Your task to perform on an android device: Do I have any events today? Image 0: 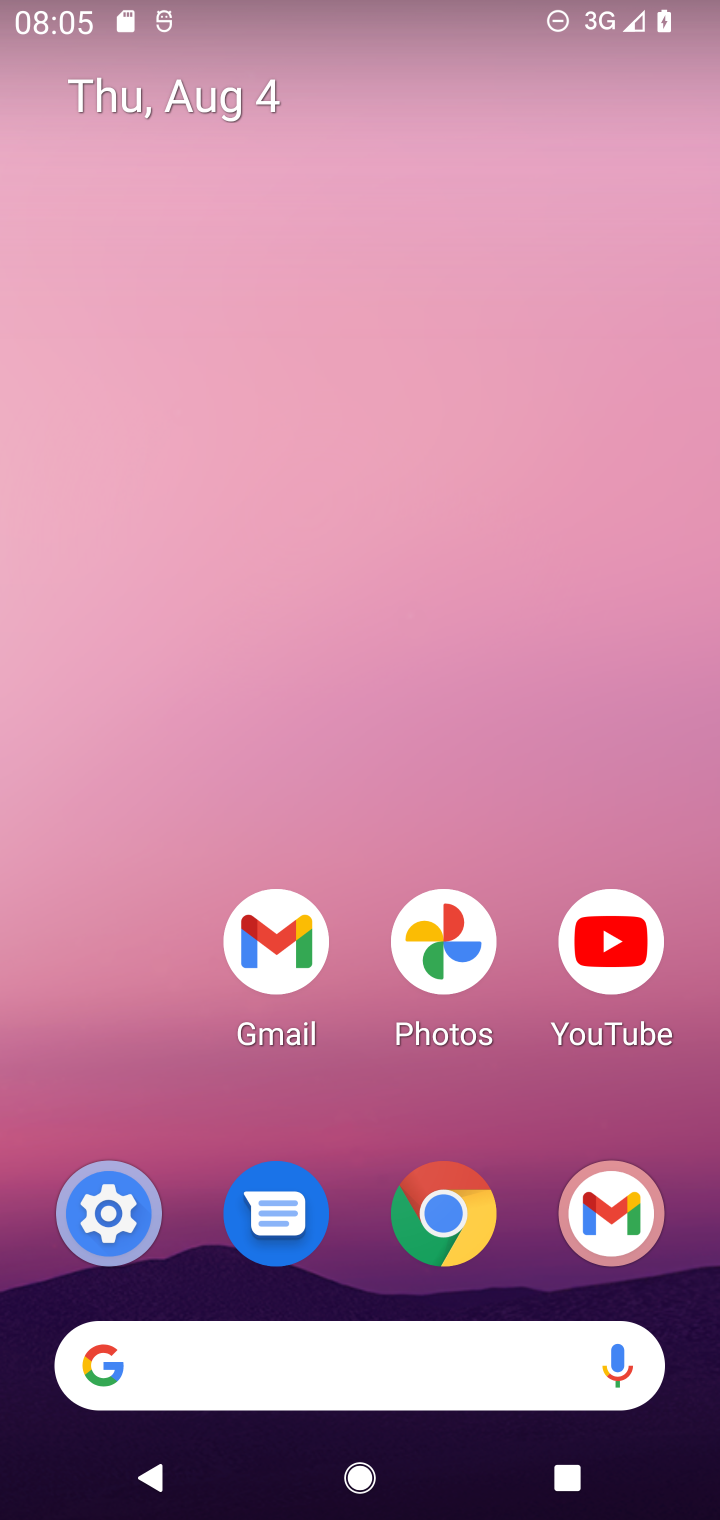
Step 0: press home button
Your task to perform on an android device: Do I have any events today? Image 1: 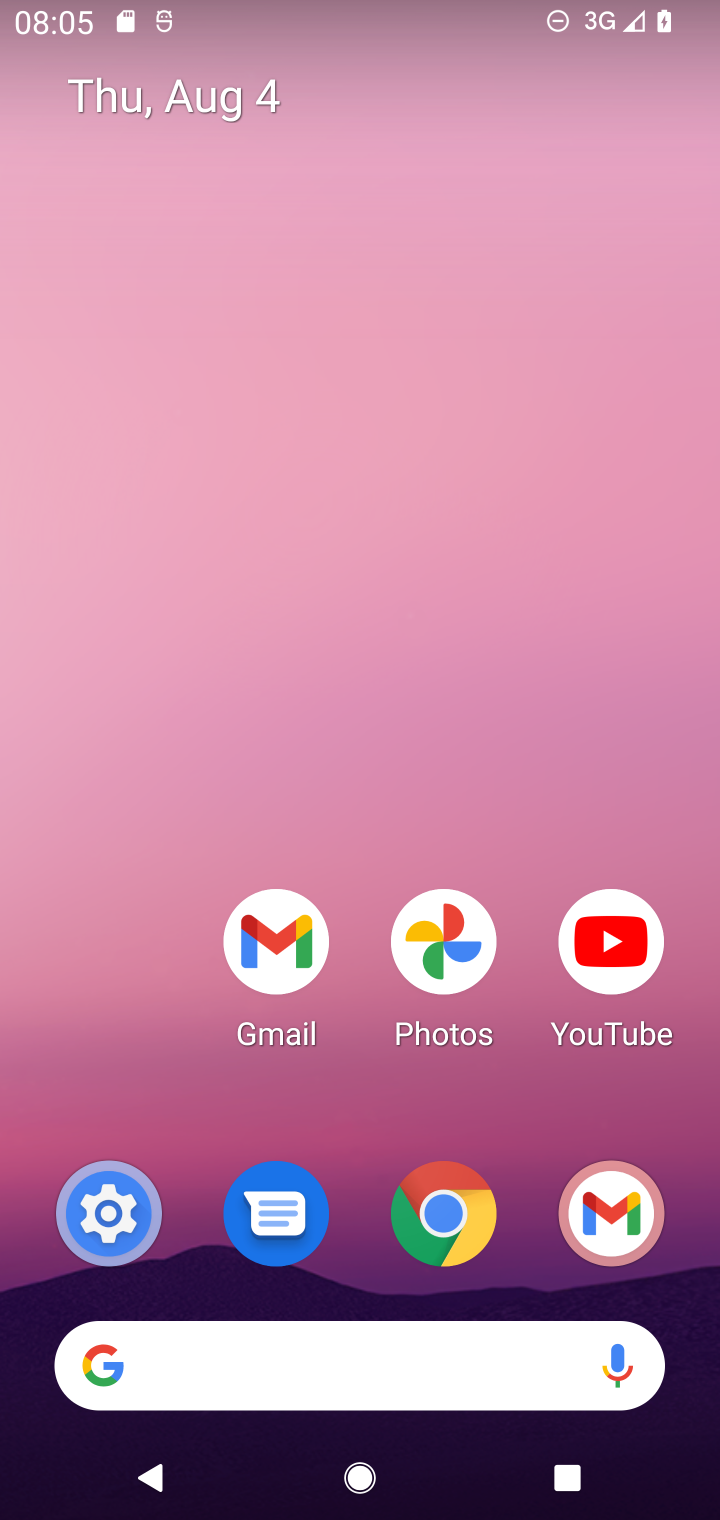
Step 1: drag from (166, 757) to (199, 356)
Your task to perform on an android device: Do I have any events today? Image 2: 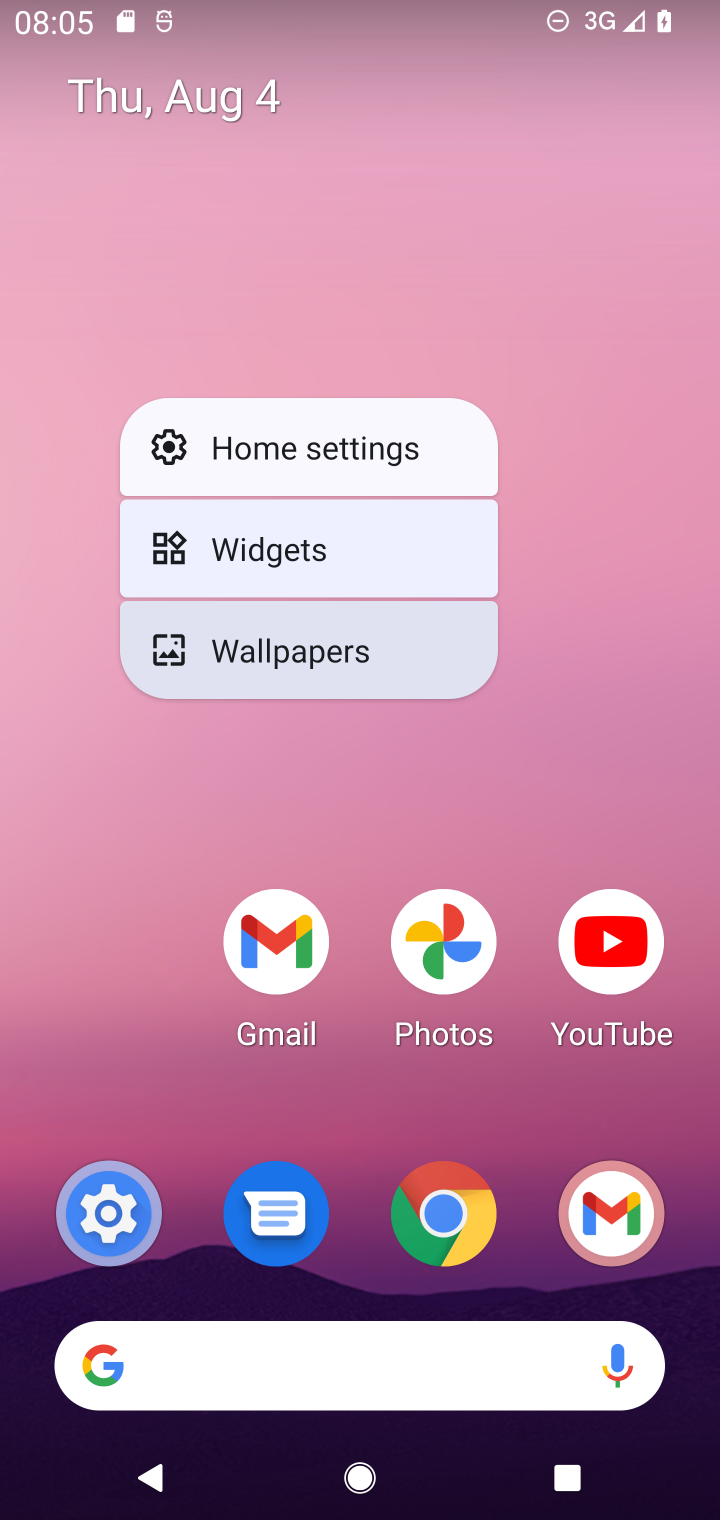
Step 2: click (98, 855)
Your task to perform on an android device: Do I have any events today? Image 3: 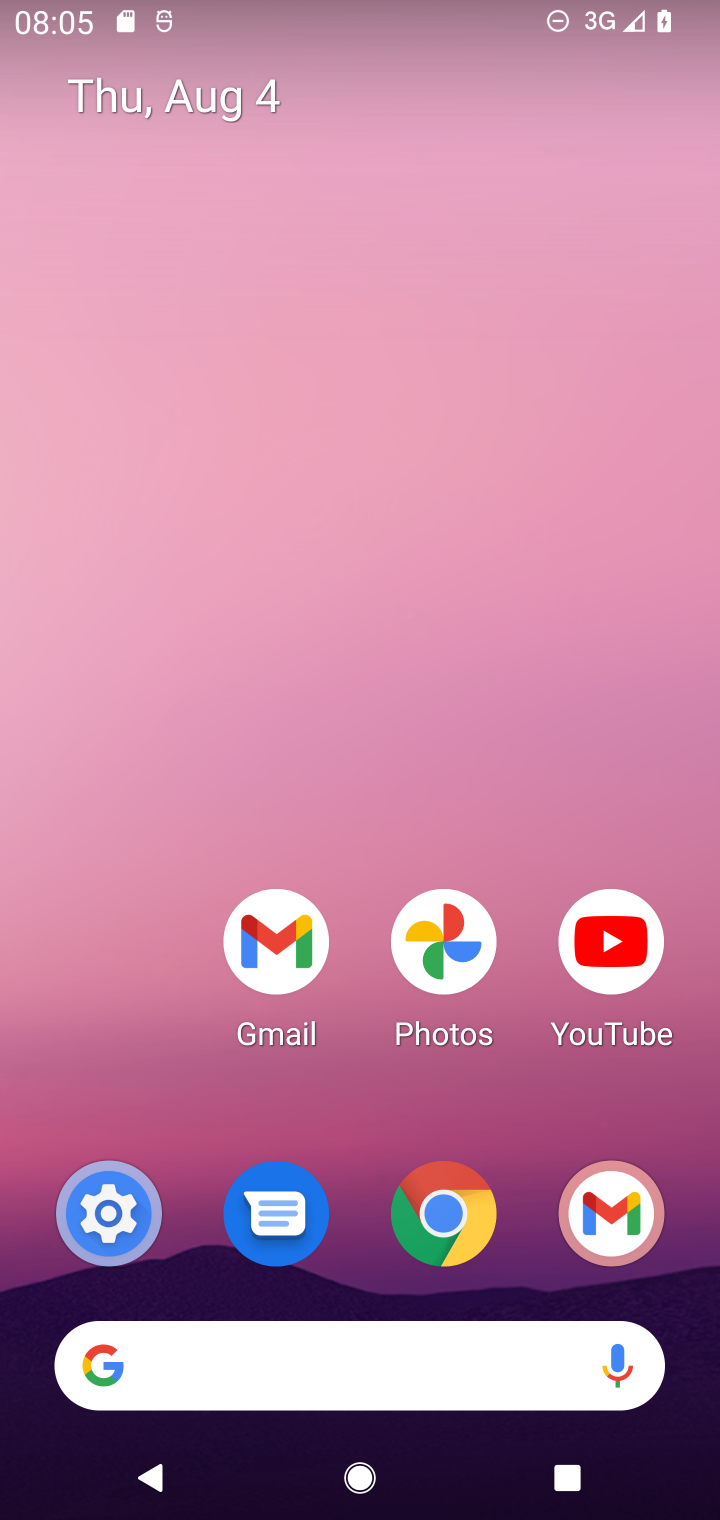
Step 3: drag from (146, 1079) to (137, 212)
Your task to perform on an android device: Do I have any events today? Image 4: 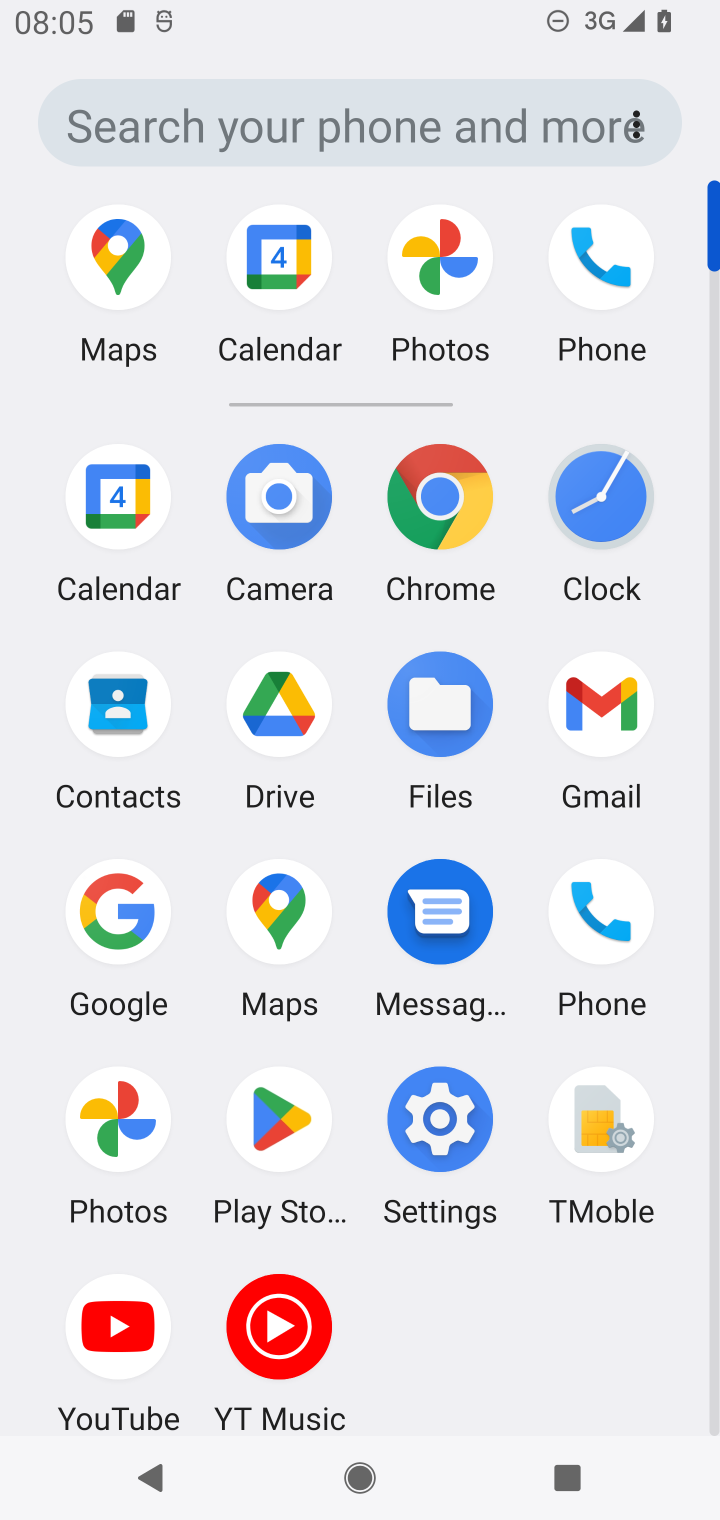
Step 4: click (120, 497)
Your task to perform on an android device: Do I have any events today? Image 5: 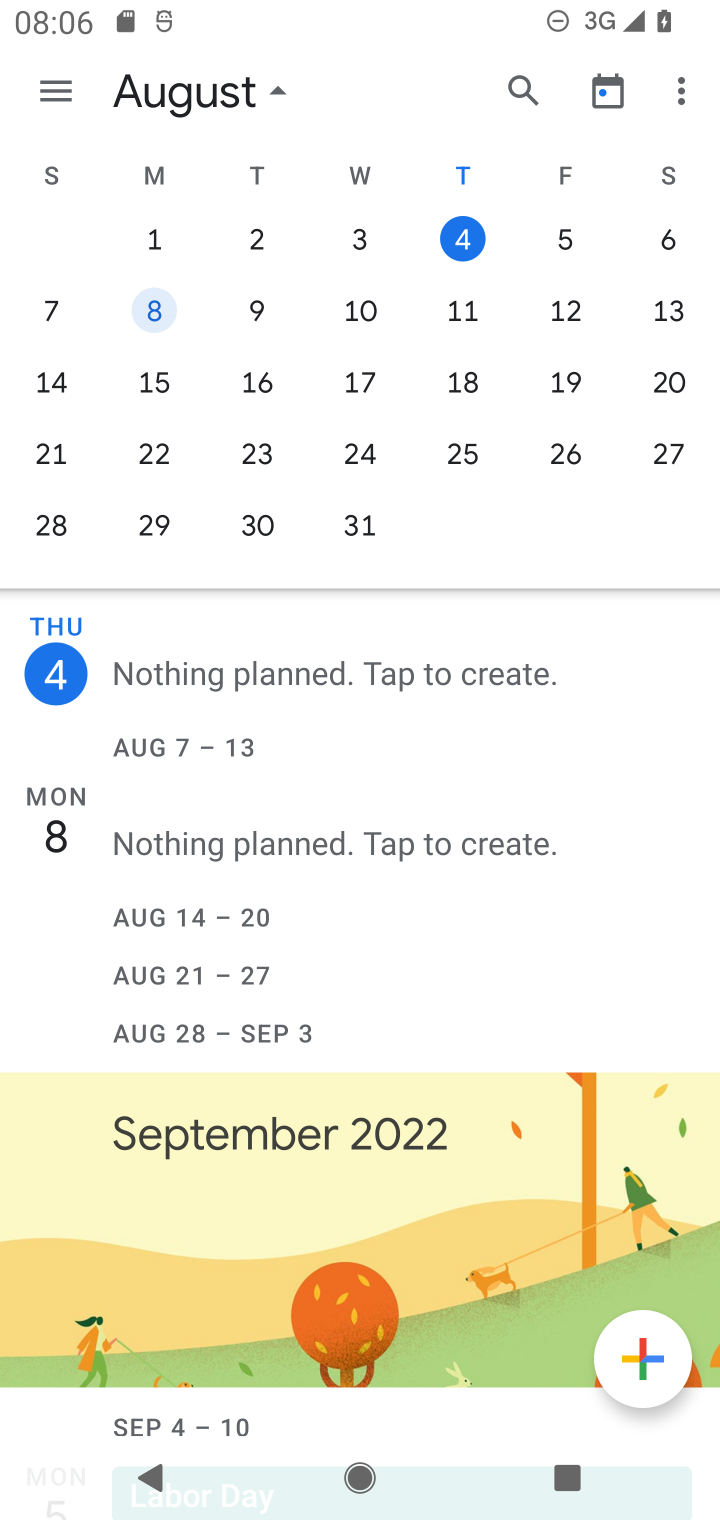
Step 5: task complete